Your task to perform on an android device: Go to battery settings Image 0: 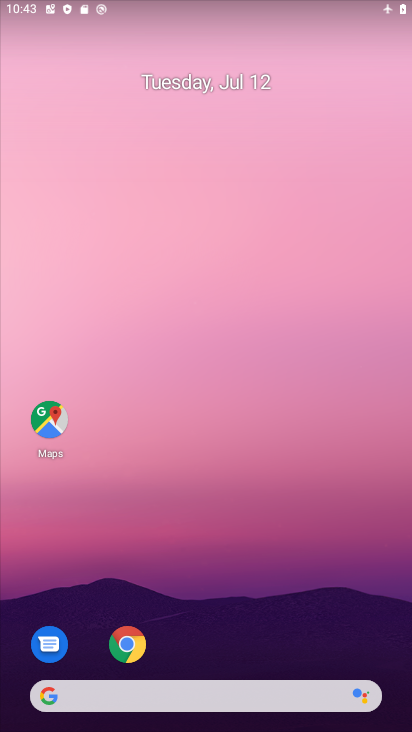
Step 0: drag from (163, 704) to (241, 154)
Your task to perform on an android device: Go to battery settings Image 1: 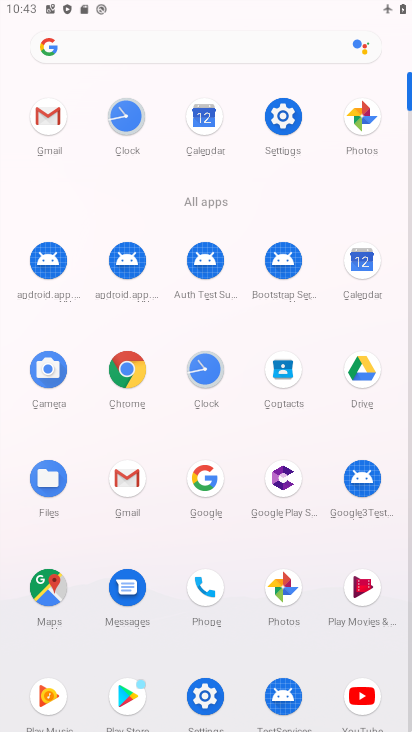
Step 1: click (290, 114)
Your task to perform on an android device: Go to battery settings Image 2: 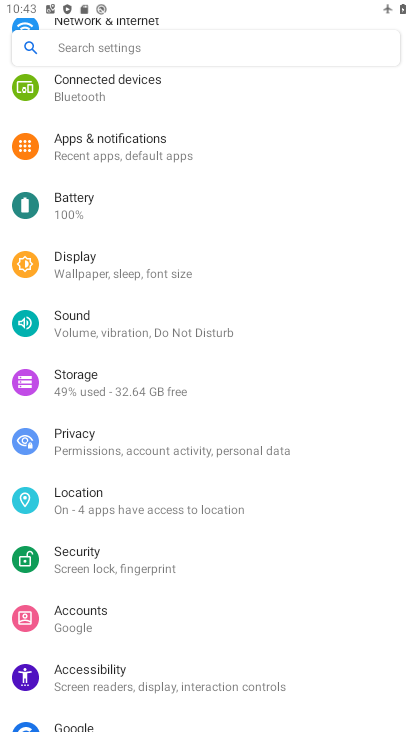
Step 2: click (127, 215)
Your task to perform on an android device: Go to battery settings Image 3: 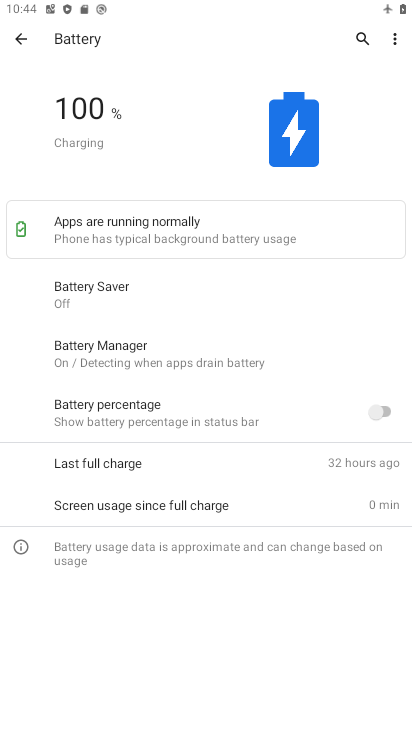
Step 3: task complete